Your task to perform on an android device: install app "Google Play Music" Image 0: 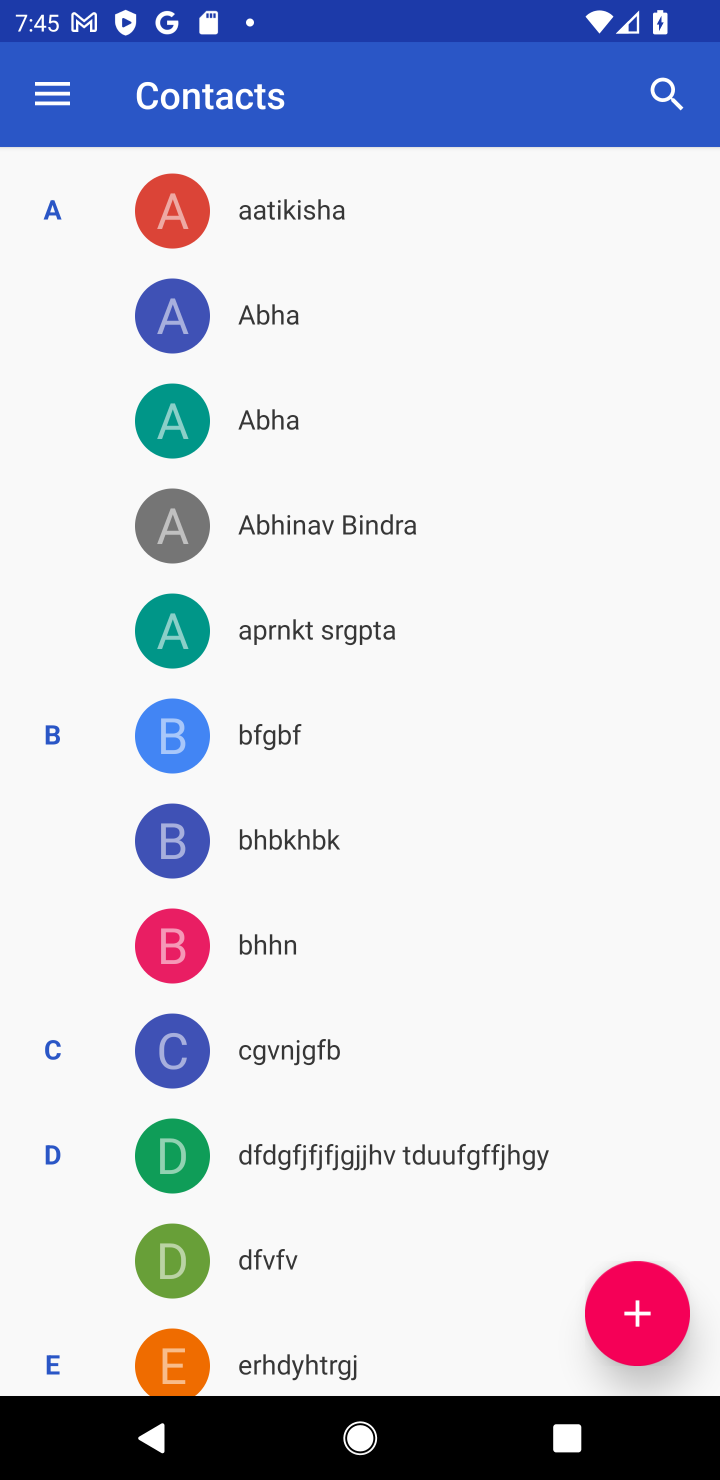
Step 0: press home button
Your task to perform on an android device: install app "Google Play Music" Image 1: 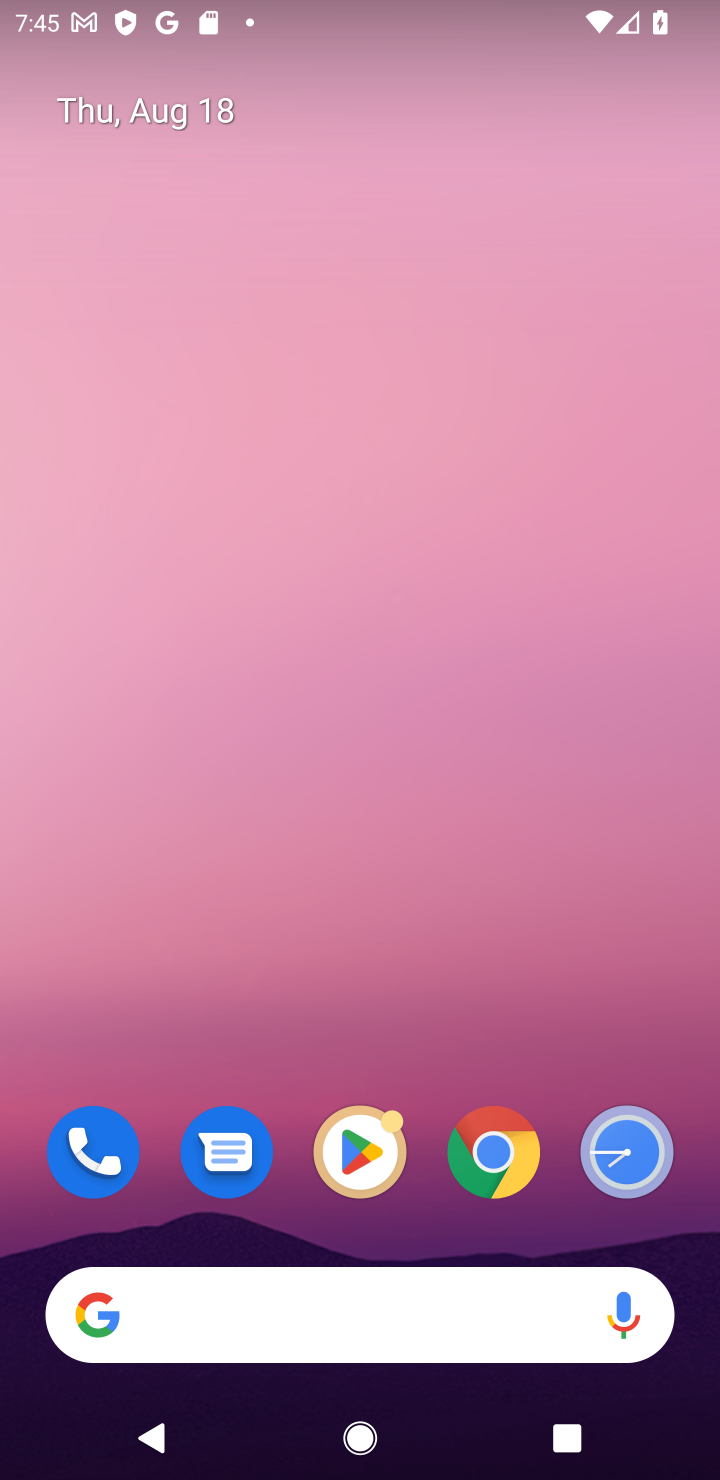
Step 1: drag from (585, 1027) to (452, 81)
Your task to perform on an android device: install app "Google Play Music" Image 2: 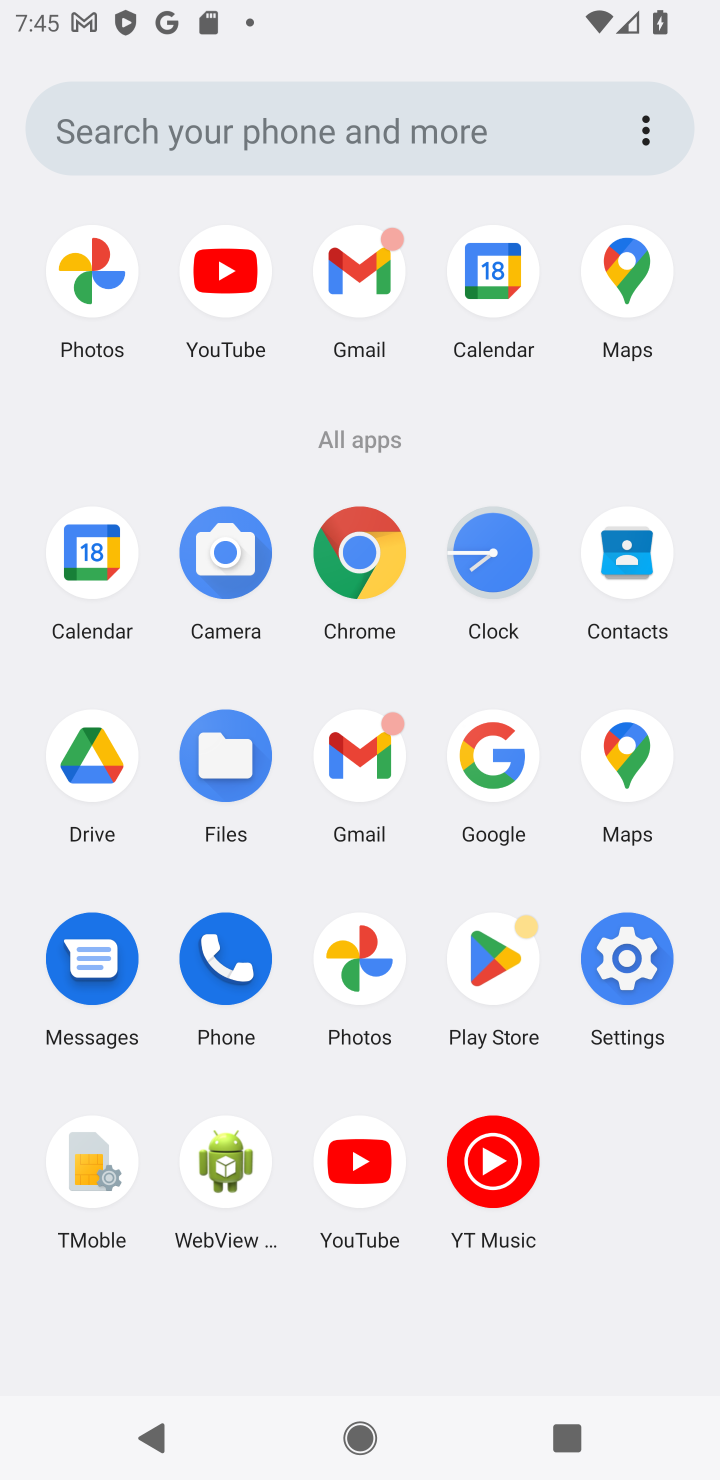
Step 2: click (507, 936)
Your task to perform on an android device: install app "Google Play Music" Image 3: 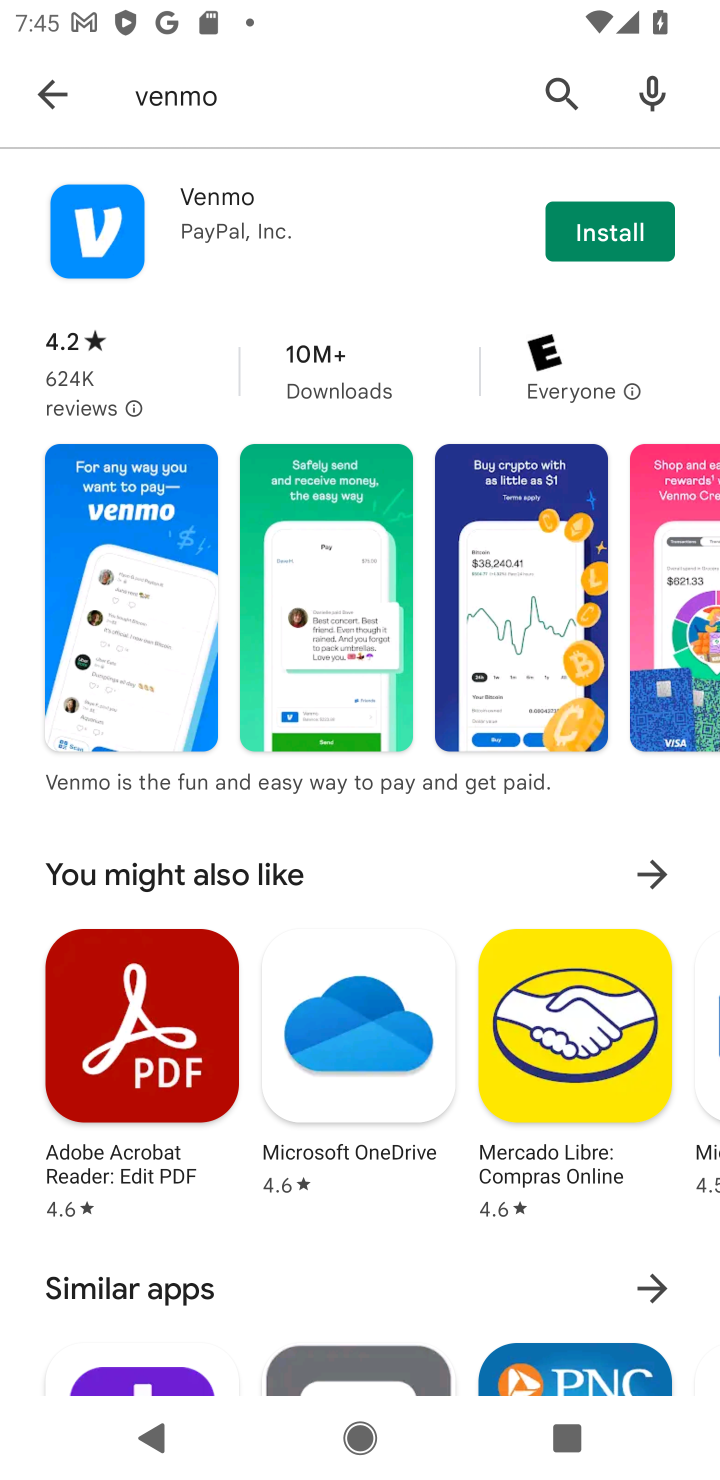
Step 3: click (565, 116)
Your task to perform on an android device: install app "Google Play Music" Image 4: 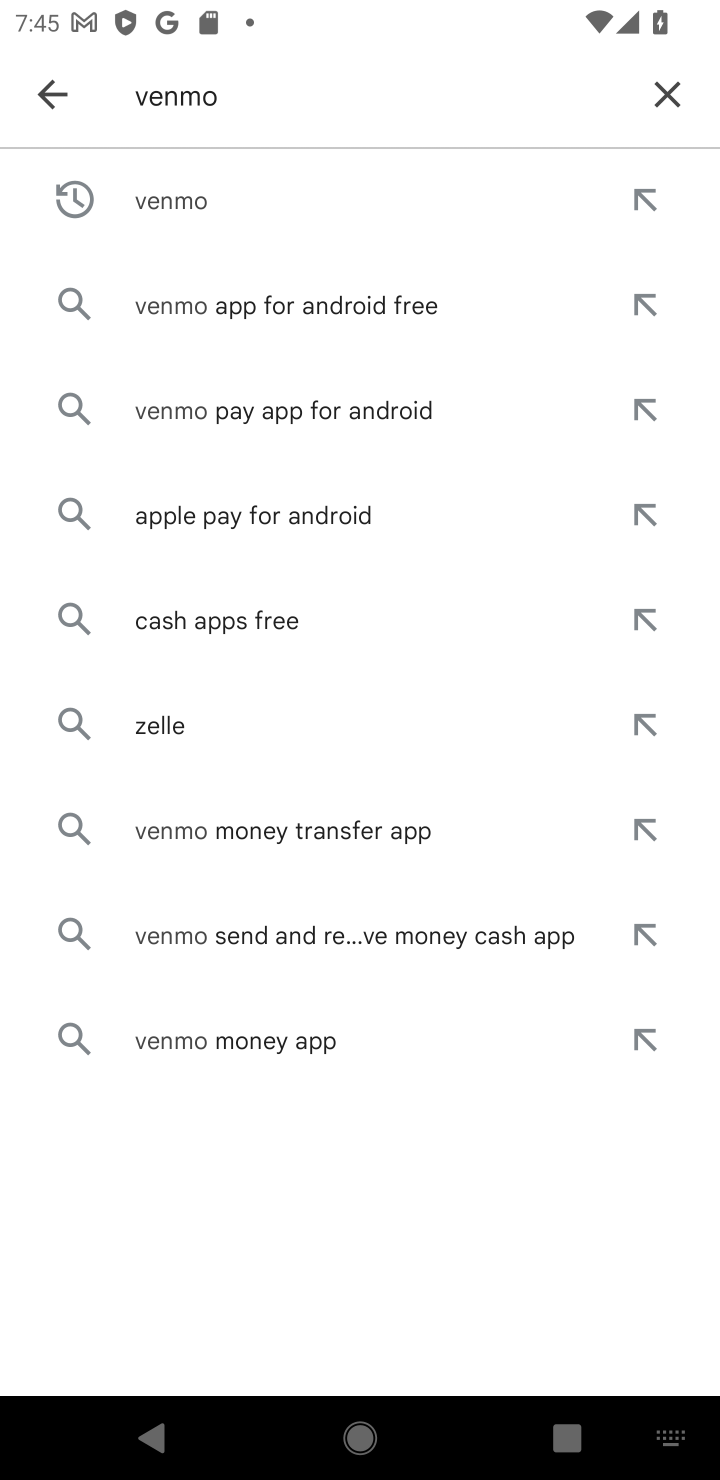
Step 4: click (680, 92)
Your task to perform on an android device: install app "Google Play Music" Image 5: 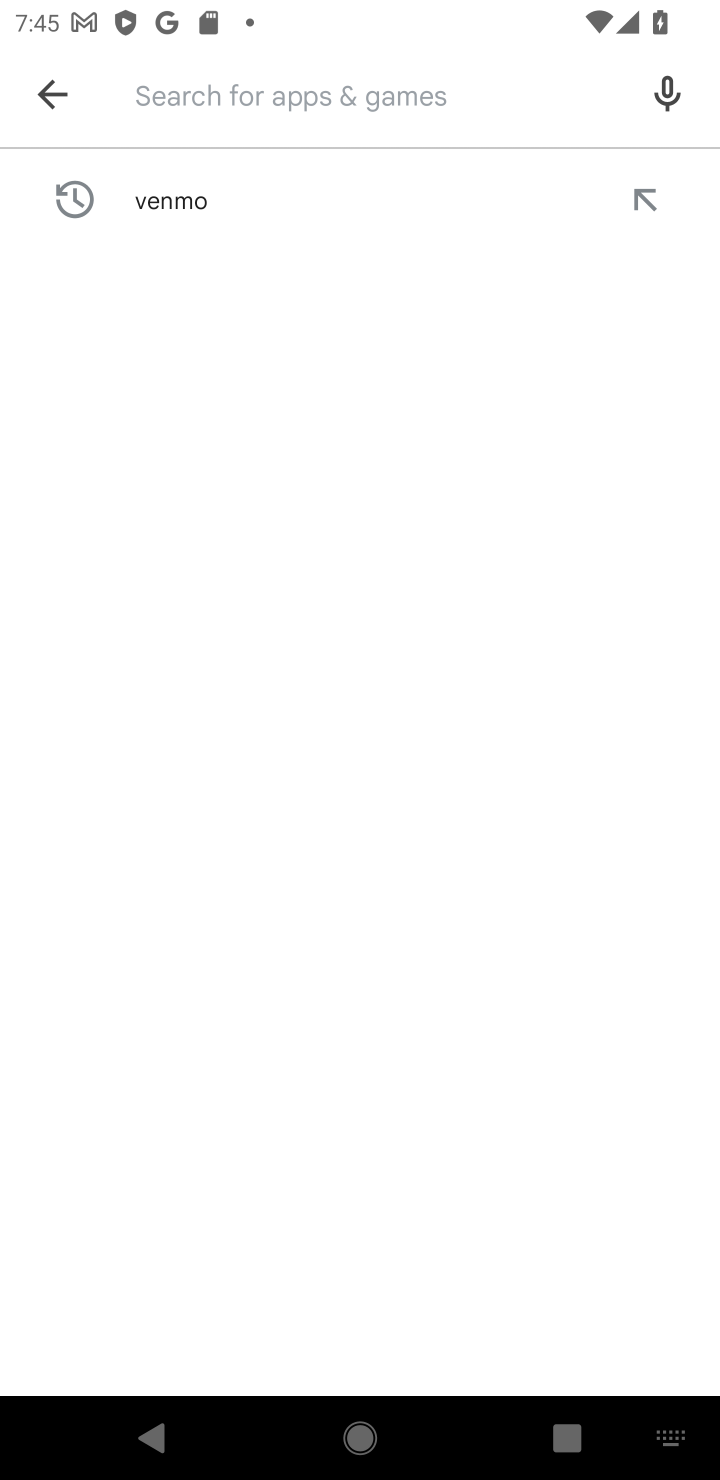
Step 5: type "google play music"
Your task to perform on an android device: install app "Google Play Music" Image 6: 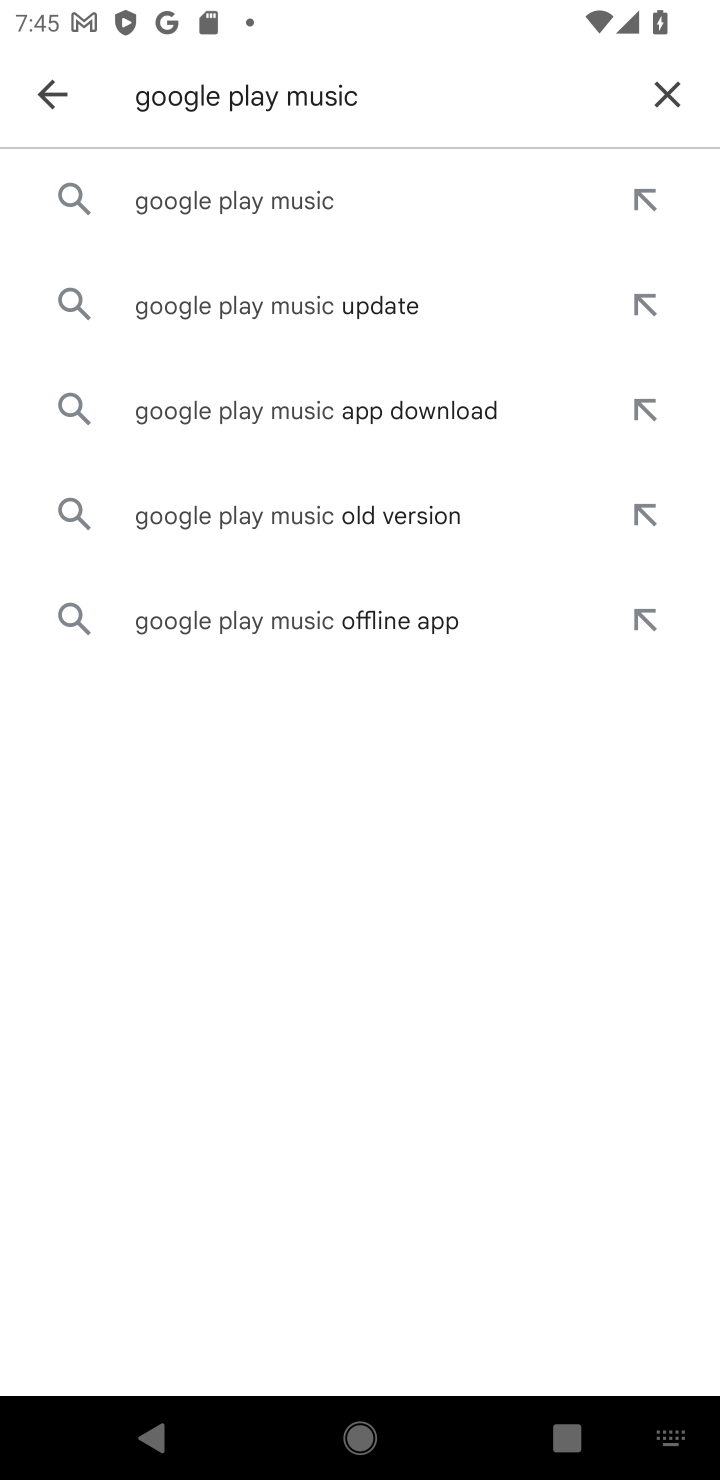
Step 6: click (461, 187)
Your task to perform on an android device: install app "Google Play Music" Image 7: 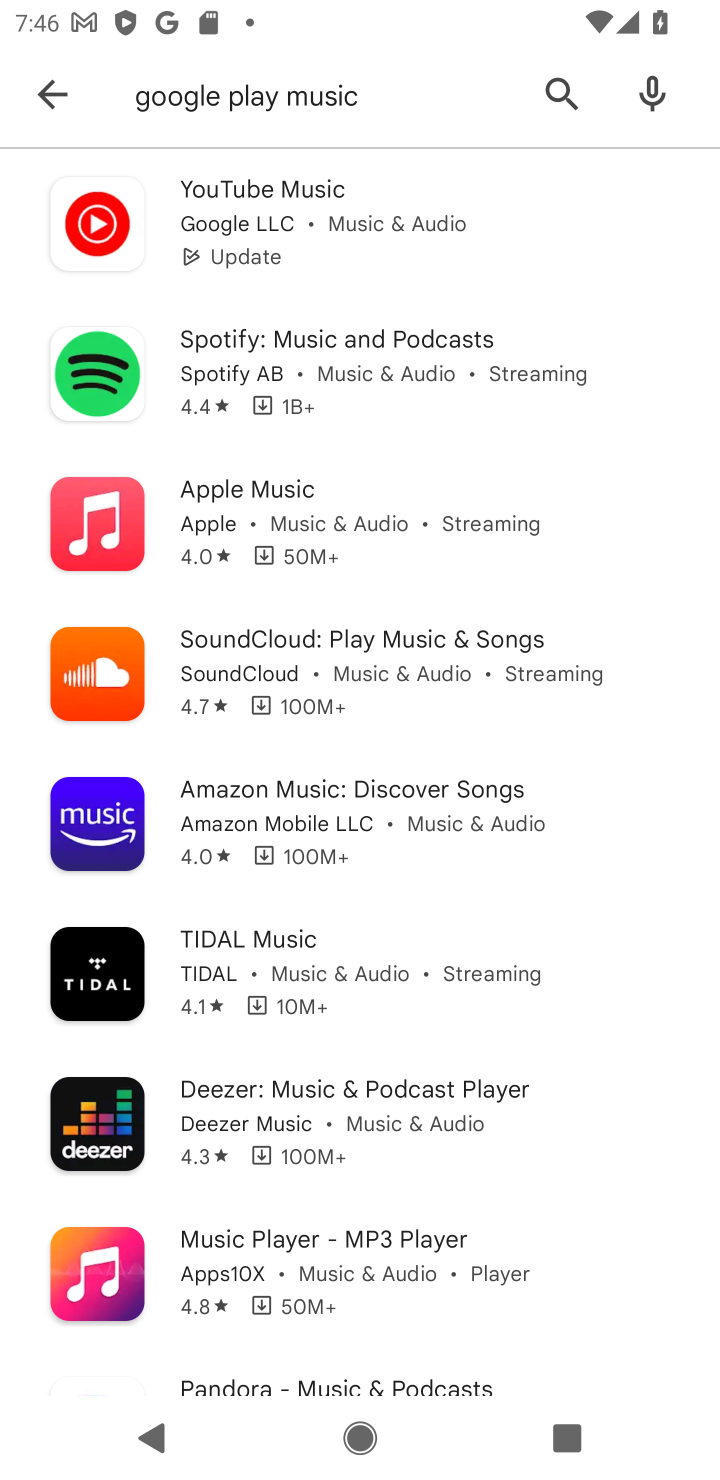
Step 7: task complete